Your task to perform on an android device: install app "Duolingo: language lessons" Image 0: 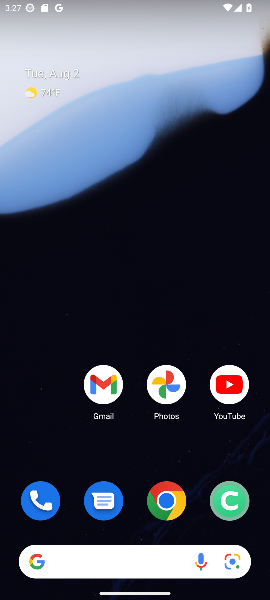
Step 0: drag from (148, 440) to (155, 53)
Your task to perform on an android device: install app "Duolingo: language lessons" Image 1: 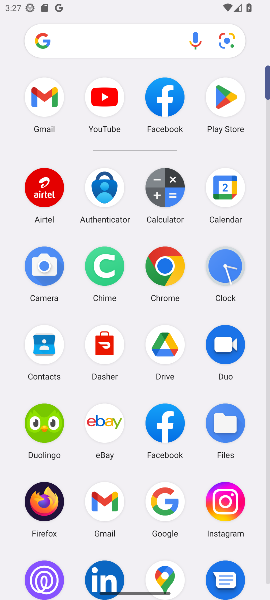
Step 1: click (221, 100)
Your task to perform on an android device: install app "Duolingo: language lessons" Image 2: 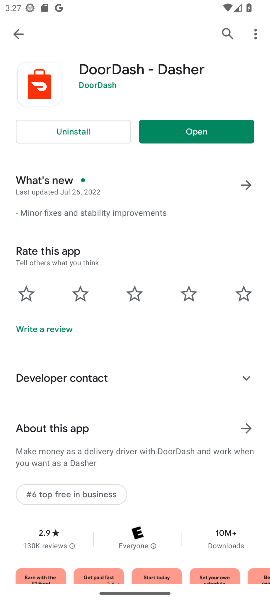
Step 2: click (225, 31)
Your task to perform on an android device: install app "Duolingo: language lessons" Image 3: 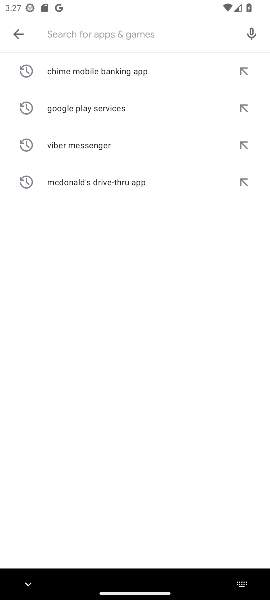
Step 3: type "Duolingo: language lessons"
Your task to perform on an android device: install app "Duolingo: language lessons" Image 4: 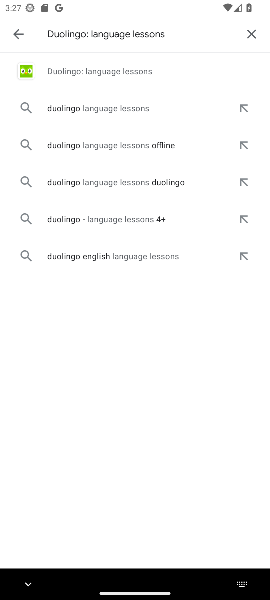
Step 4: click (100, 73)
Your task to perform on an android device: install app "Duolingo: language lessons" Image 5: 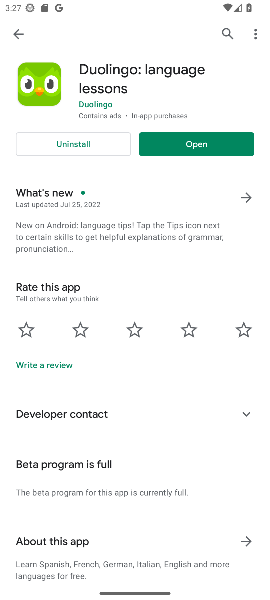
Step 5: task complete